Your task to perform on an android device: change notification settings in the gmail app Image 0: 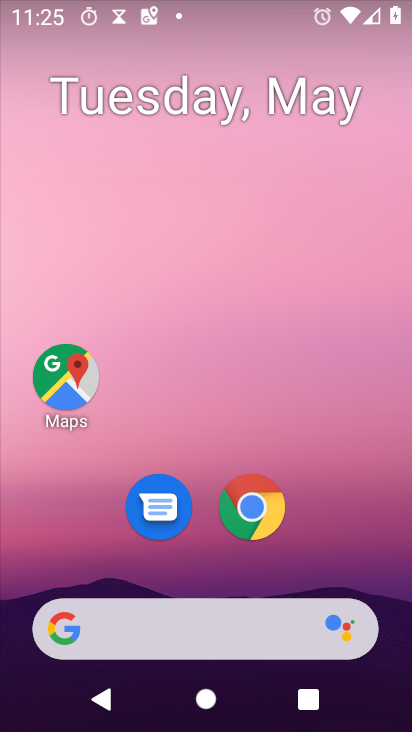
Step 0: drag from (30, 501) to (235, 78)
Your task to perform on an android device: change notification settings in the gmail app Image 1: 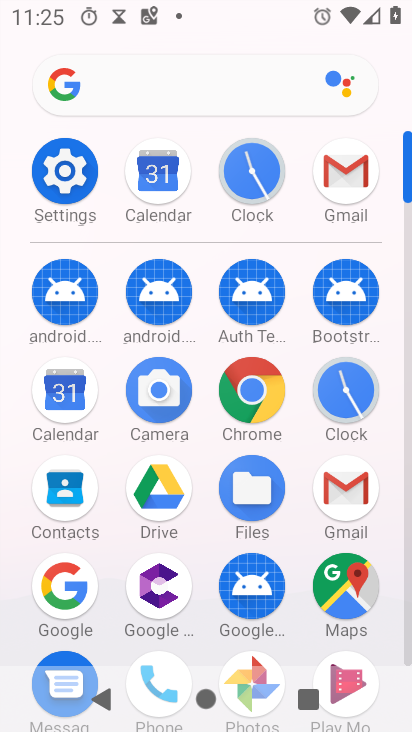
Step 1: click (353, 186)
Your task to perform on an android device: change notification settings in the gmail app Image 2: 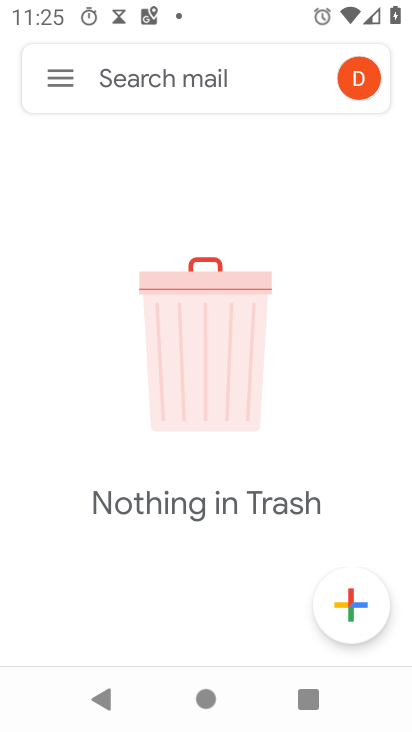
Step 2: click (45, 75)
Your task to perform on an android device: change notification settings in the gmail app Image 3: 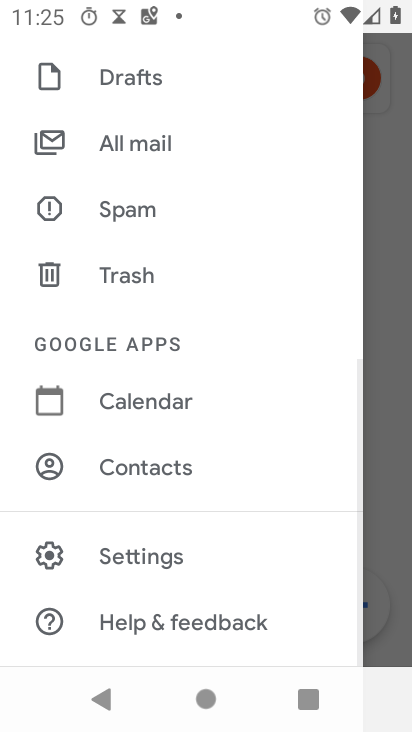
Step 3: click (133, 548)
Your task to perform on an android device: change notification settings in the gmail app Image 4: 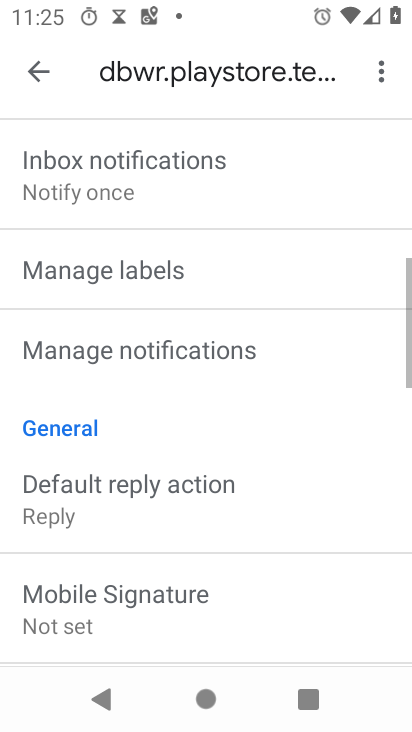
Step 4: click (159, 353)
Your task to perform on an android device: change notification settings in the gmail app Image 5: 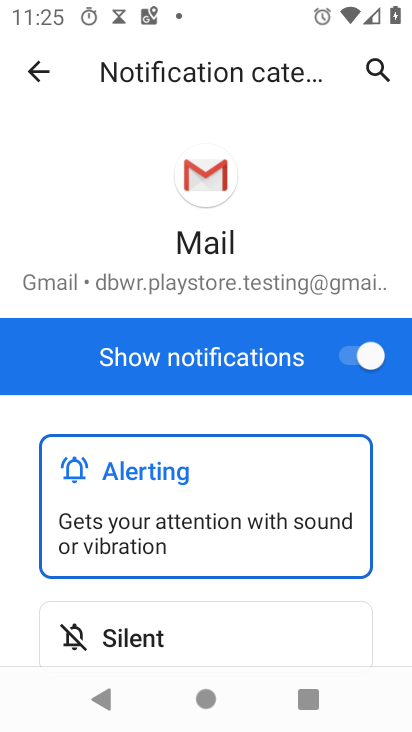
Step 5: click (365, 359)
Your task to perform on an android device: change notification settings in the gmail app Image 6: 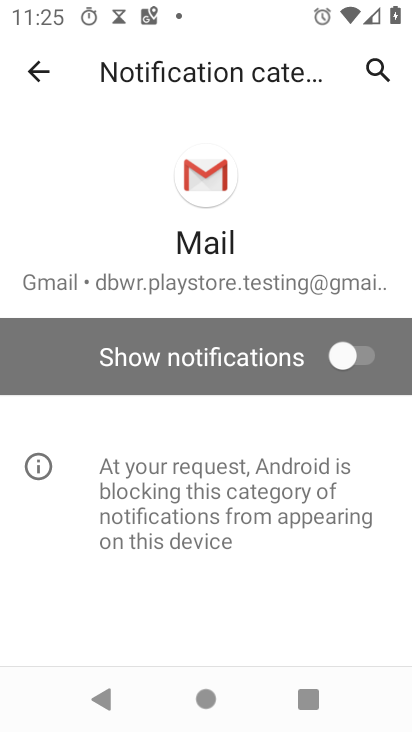
Step 6: task complete